Your task to perform on an android device: turn off notifications settings in the gmail app Image 0: 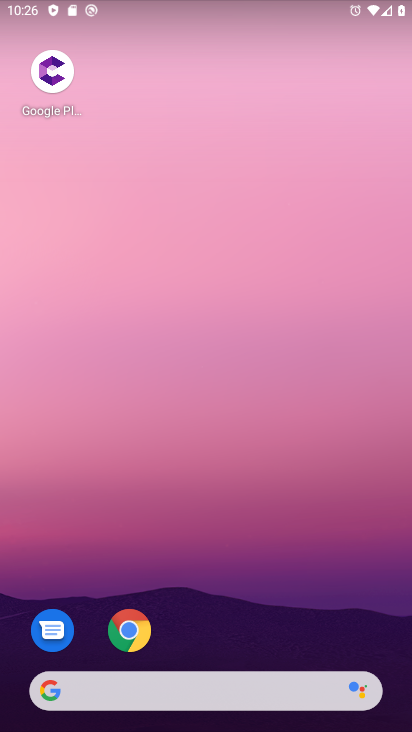
Step 0: drag from (278, 564) to (299, 53)
Your task to perform on an android device: turn off notifications settings in the gmail app Image 1: 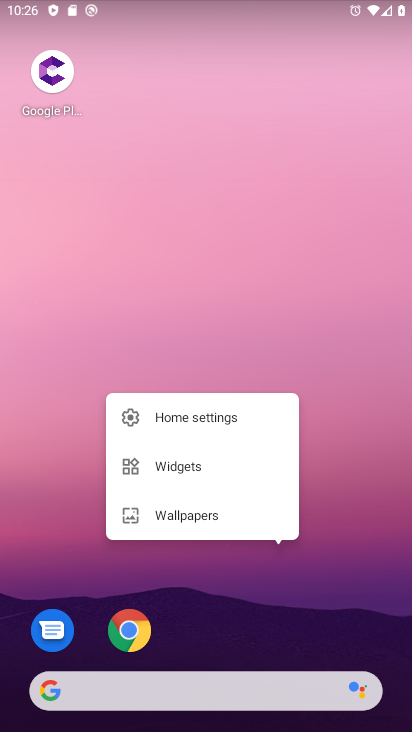
Step 1: click (373, 606)
Your task to perform on an android device: turn off notifications settings in the gmail app Image 2: 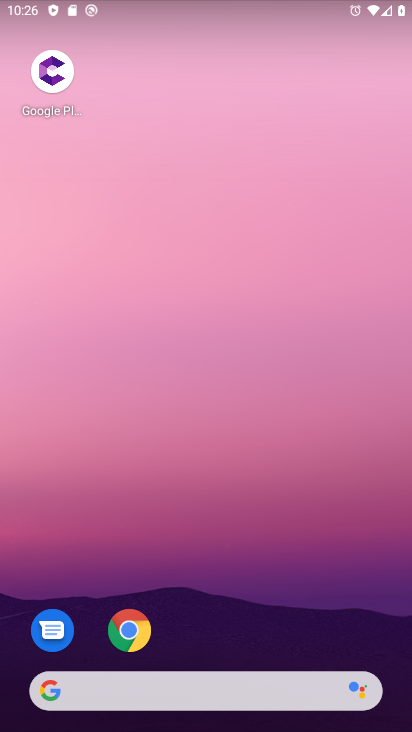
Step 2: drag from (313, 666) to (341, 29)
Your task to perform on an android device: turn off notifications settings in the gmail app Image 3: 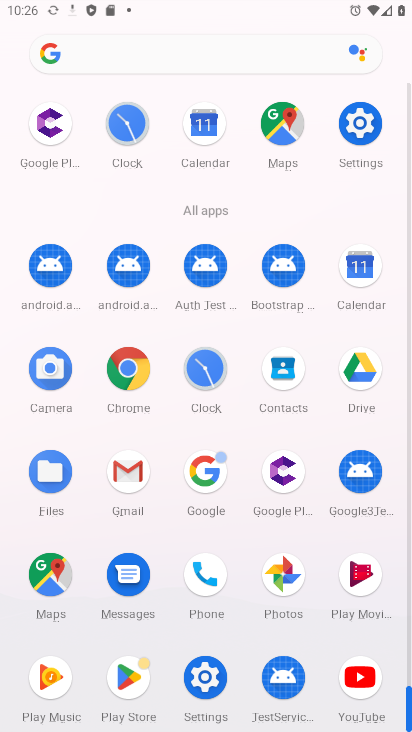
Step 3: click (134, 456)
Your task to perform on an android device: turn off notifications settings in the gmail app Image 4: 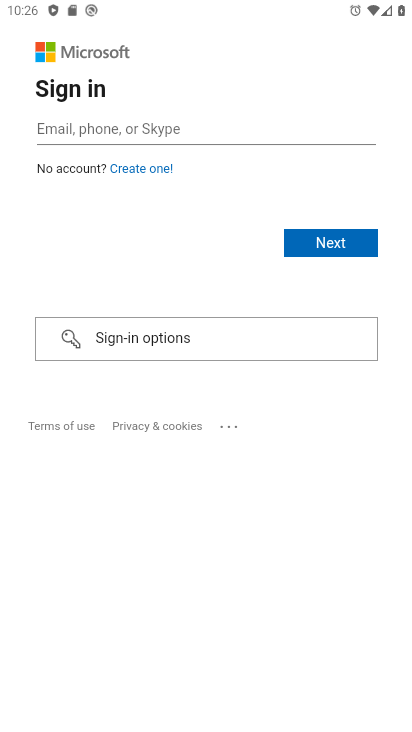
Step 4: press back button
Your task to perform on an android device: turn off notifications settings in the gmail app Image 5: 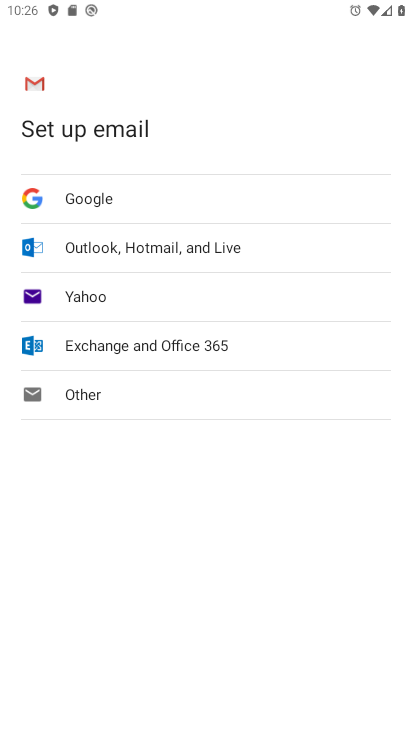
Step 5: press back button
Your task to perform on an android device: turn off notifications settings in the gmail app Image 6: 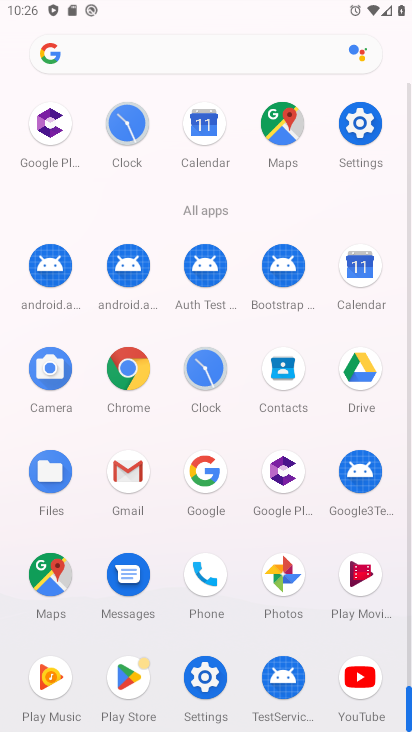
Step 6: click (128, 476)
Your task to perform on an android device: turn off notifications settings in the gmail app Image 7: 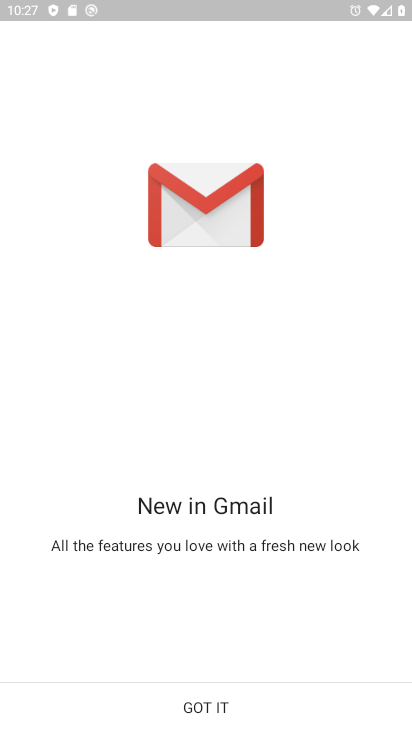
Step 7: click (205, 706)
Your task to perform on an android device: turn off notifications settings in the gmail app Image 8: 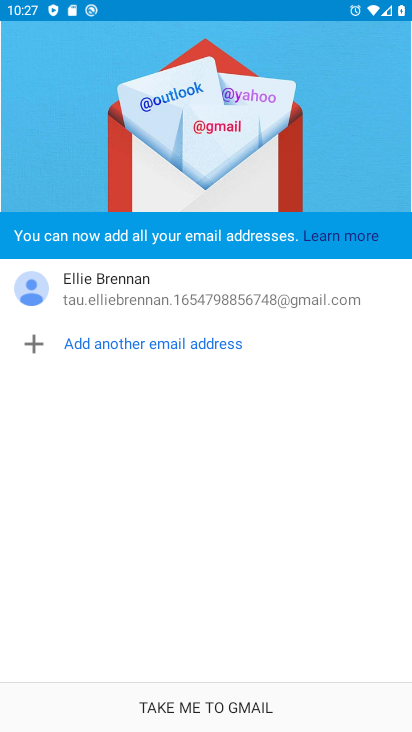
Step 8: click (205, 706)
Your task to perform on an android device: turn off notifications settings in the gmail app Image 9: 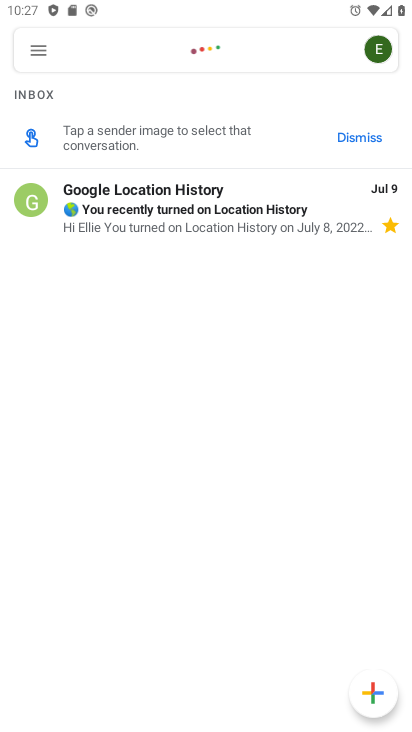
Step 9: click (37, 50)
Your task to perform on an android device: turn off notifications settings in the gmail app Image 10: 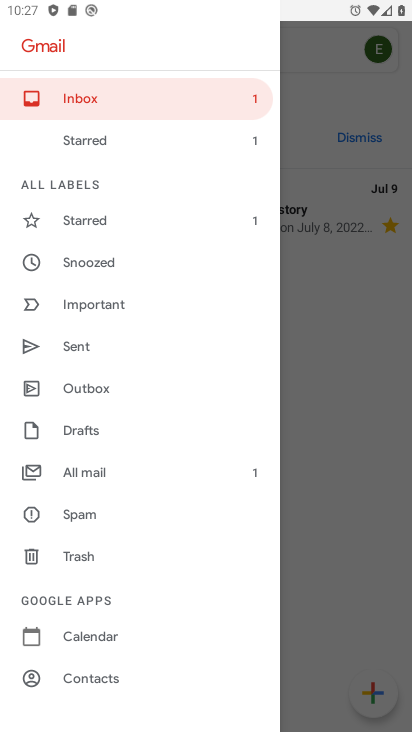
Step 10: drag from (133, 624) to (193, 151)
Your task to perform on an android device: turn off notifications settings in the gmail app Image 11: 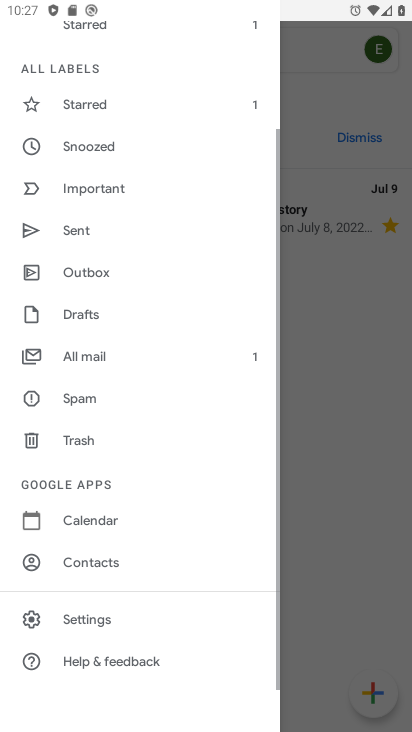
Step 11: click (80, 616)
Your task to perform on an android device: turn off notifications settings in the gmail app Image 12: 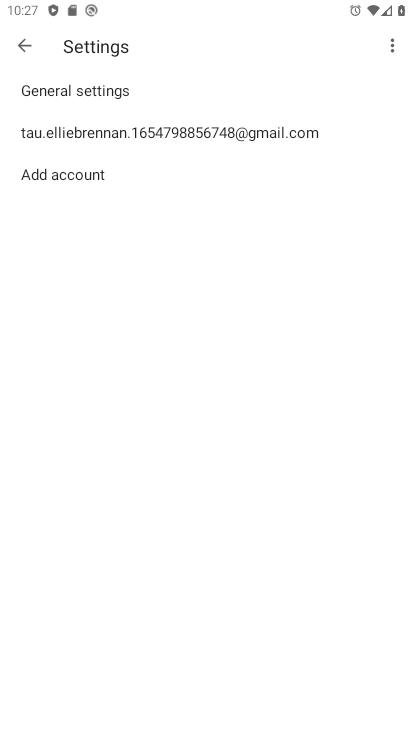
Step 12: click (69, 119)
Your task to perform on an android device: turn off notifications settings in the gmail app Image 13: 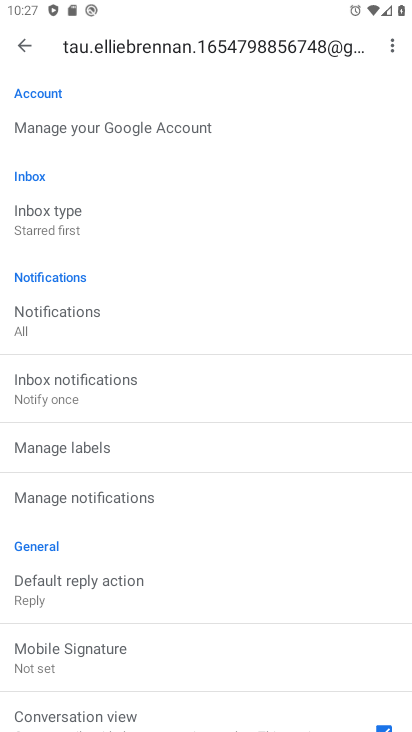
Step 13: click (99, 325)
Your task to perform on an android device: turn off notifications settings in the gmail app Image 14: 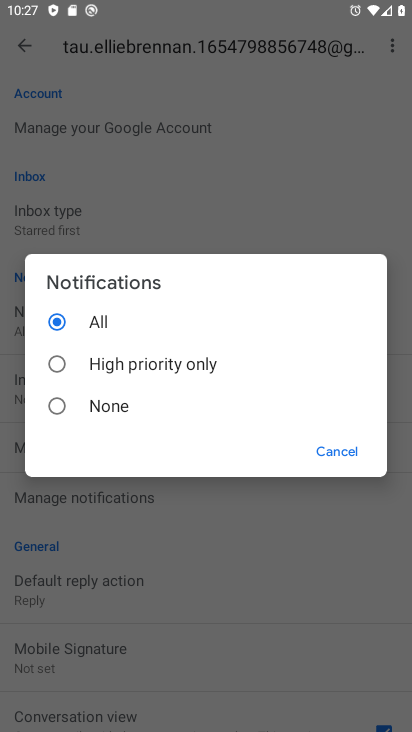
Step 14: click (108, 406)
Your task to perform on an android device: turn off notifications settings in the gmail app Image 15: 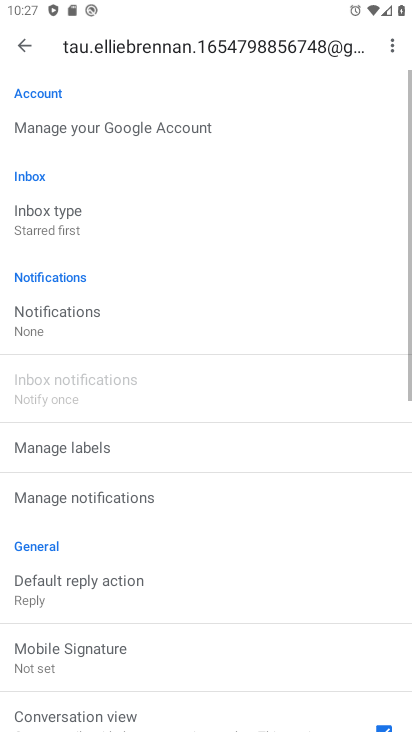
Step 15: task complete